Your task to perform on an android device: turn off notifications in google photos Image 0: 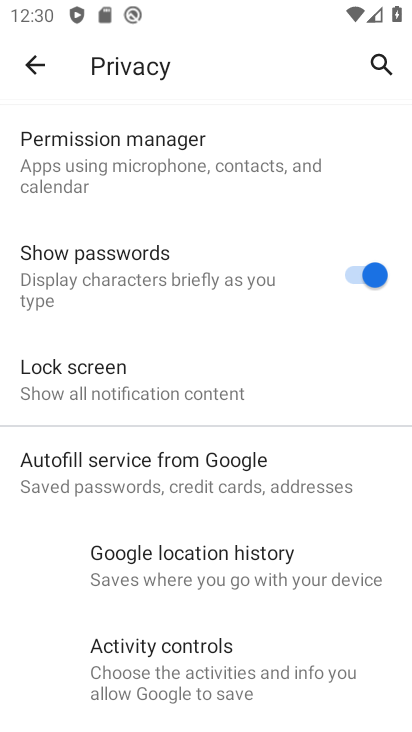
Step 0: press home button
Your task to perform on an android device: turn off notifications in google photos Image 1: 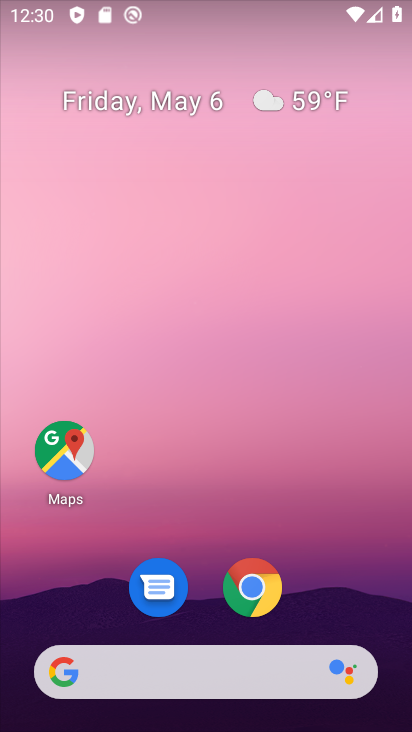
Step 1: drag from (252, 655) to (295, 98)
Your task to perform on an android device: turn off notifications in google photos Image 2: 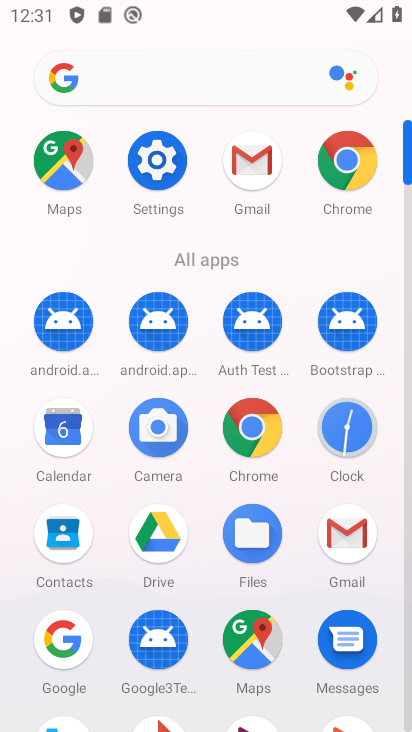
Step 2: drag from (201, 547) to (265, 154)
Your task to perform on an android device: turn off notifications in google photos Image 3: 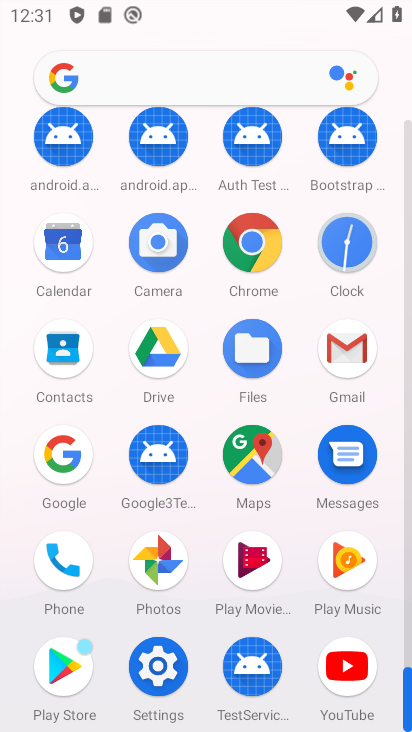
Step 3: click (161, 585)
Your task to perform on an android device: turn off notifications in google photos Image 4: 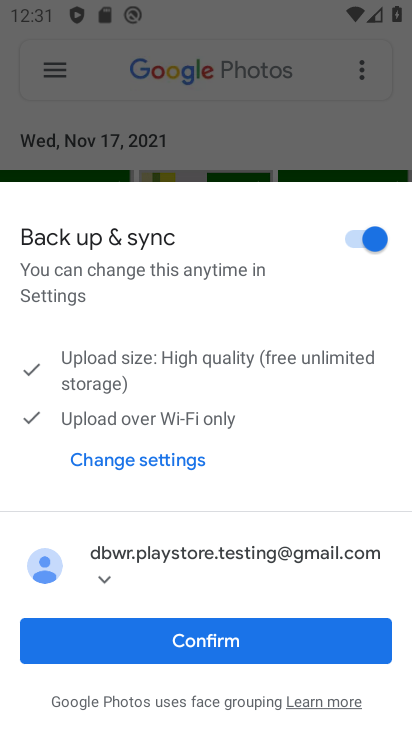
Step 4: click (163, 646)
Your task to perform on an android device: turn off notifications in google photos Image 5: 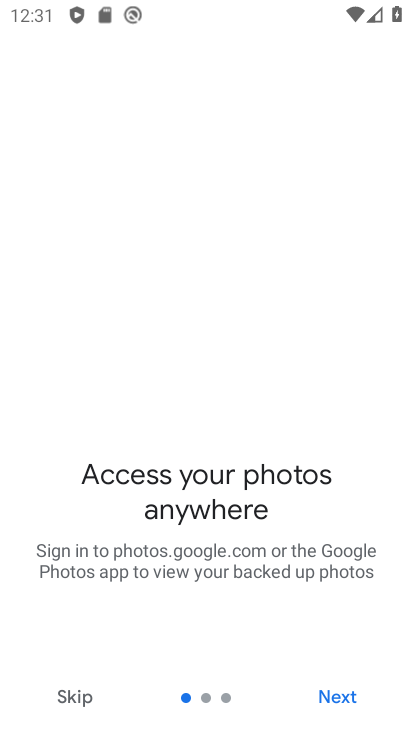
Step 5: click (316, 694)
Your task to perform on an android device: turn off notifications in google photos Image 6: 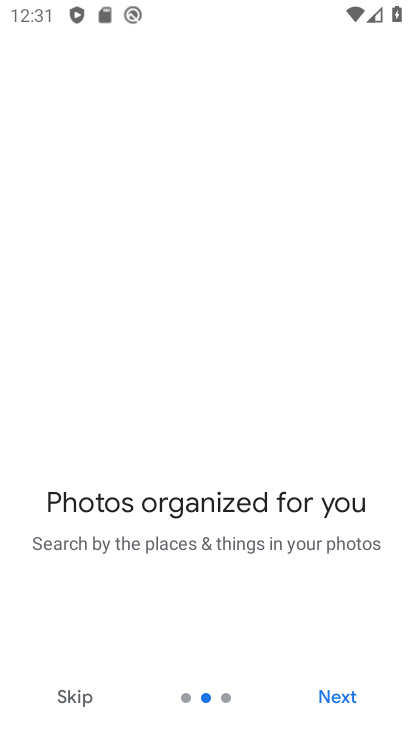
Step 6: click (317, 695)
Your task to perform on an android device: turn off notifications in google photos Image 7: 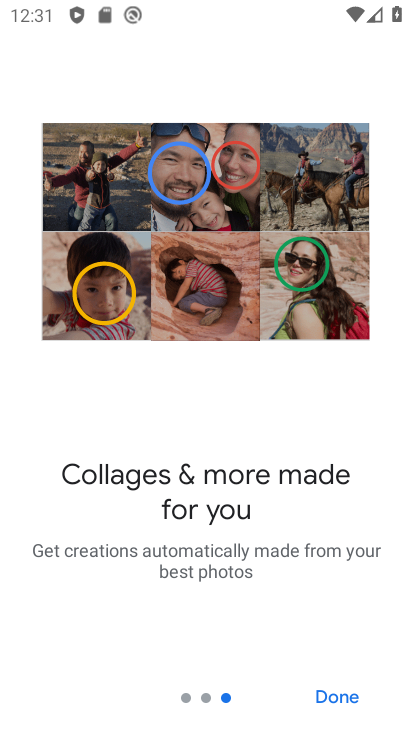
Step 7: click (319, 697)
Your task to perform on an android device: turn off notifications in google photos Image 8: 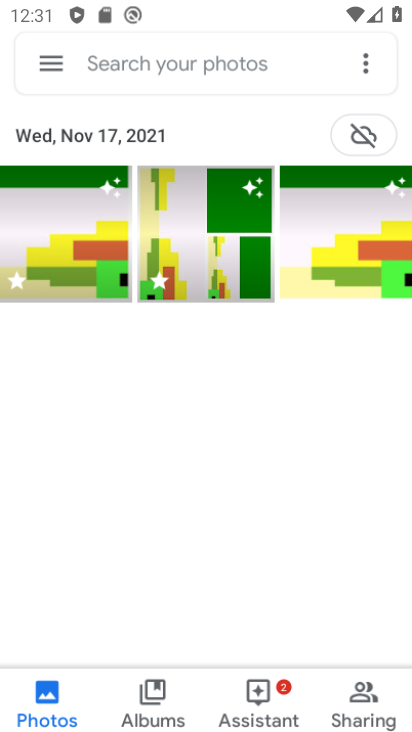
Step 8: click (319, 697)
Your task to perform on an android device: turn off notifications in google photos Image 9: 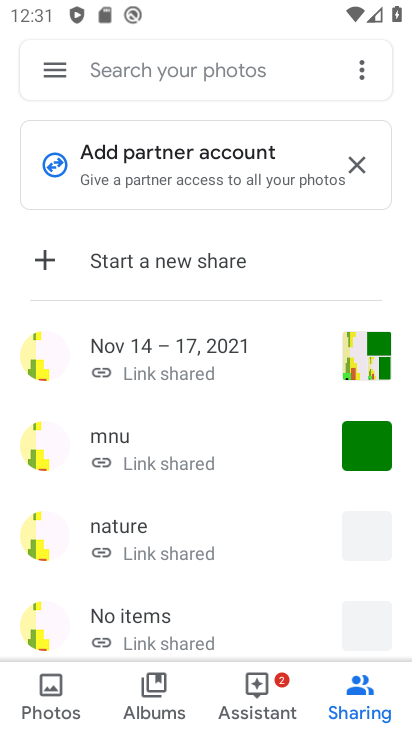
Step 9: click (59, 704)
Your task to perform on an android device: turn off notifications in google photos Image 10: 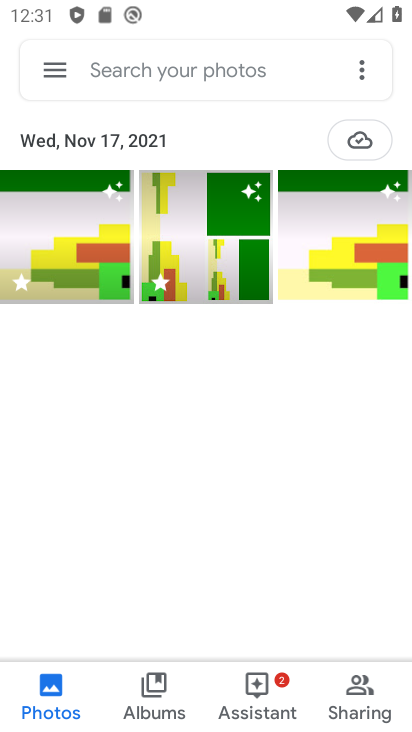
Step 10: click (59, 65)
Your task to perform on an android device: turn off notifications in google photos Image 11: 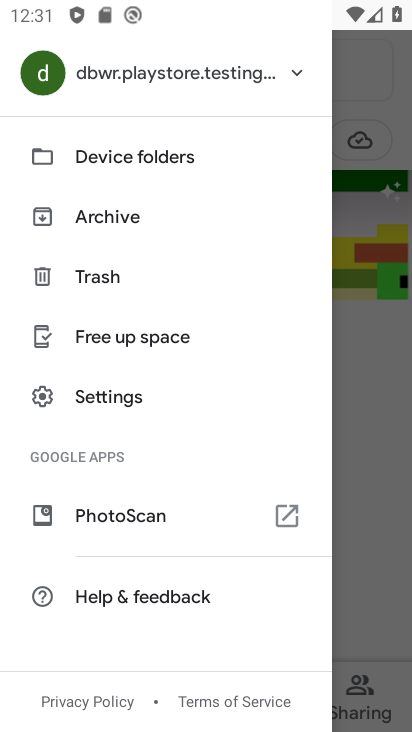
Step 11: drag from (114, 553) to (137, 324)
Your task to perform on an android device: turn off notifications in google photos Image 12: 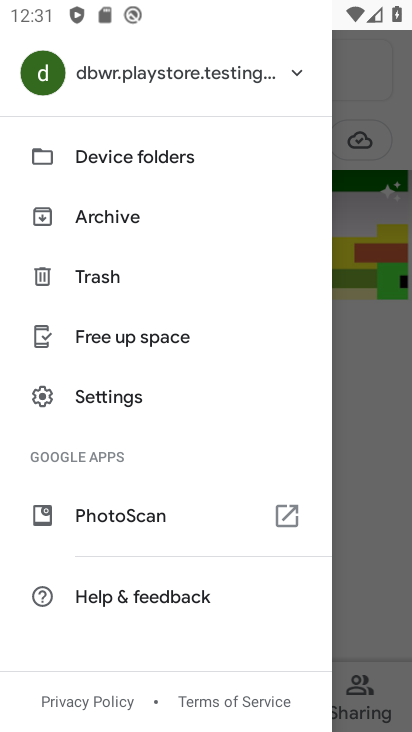
Step 12: click (137, 404)
Your task to perform on an android device: turn off notifications in google photos Image 13: 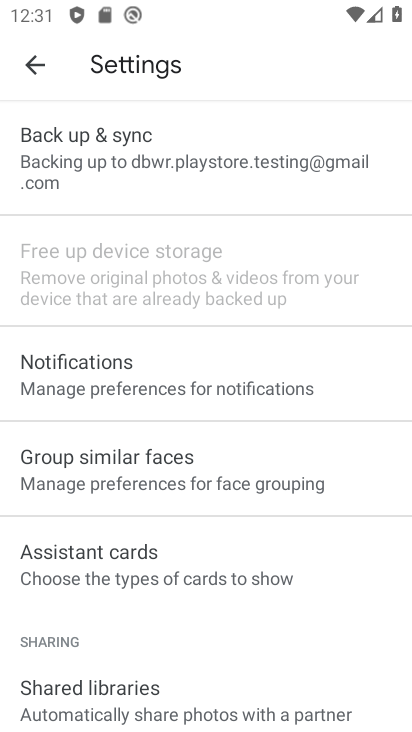
Step 13: click (209, 356)
Your task to perform on an android device: turn off notifications in google photos Image 14: 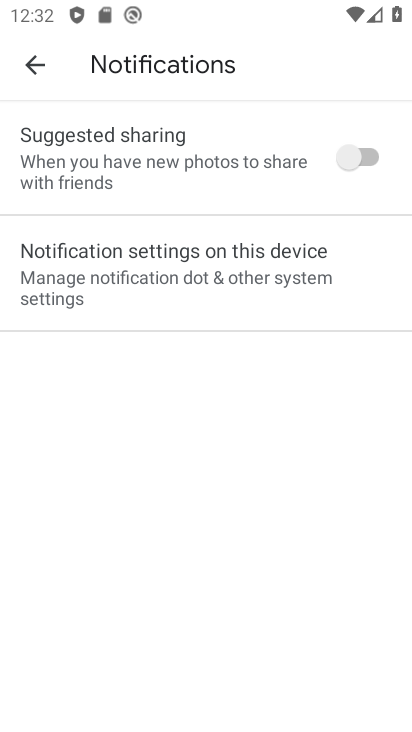
Step 14: click (206, 273)
Your task to perform on an android device: turn off notifications in google photos Image 15: 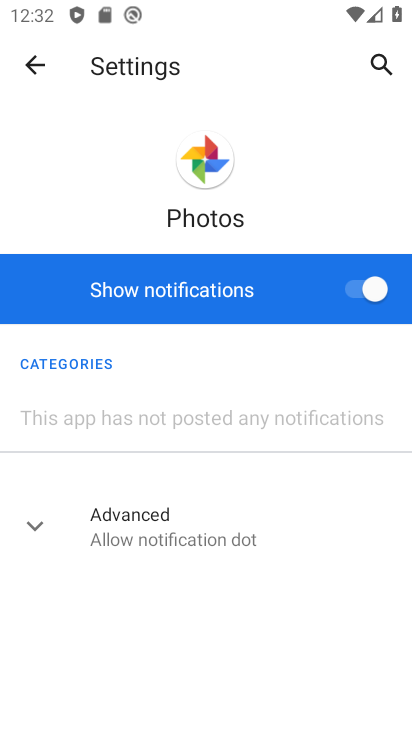
Step 15: click (349, 288)
Your task to perform on an android device: turn off notifications in google photos Image 16: 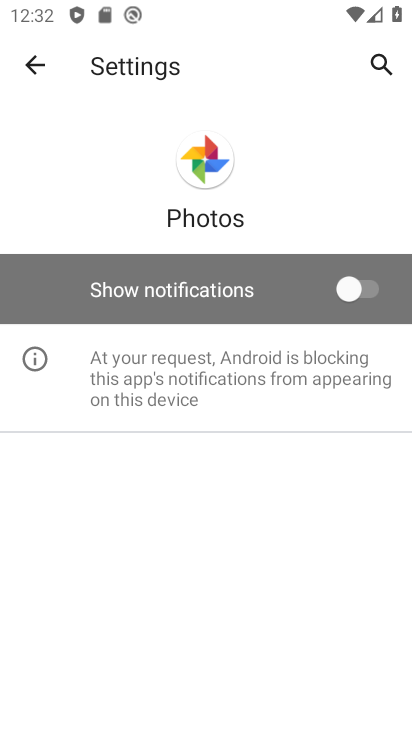
Step 16: task complete